Your task to perform on an android device: Show me recent news Image 0: 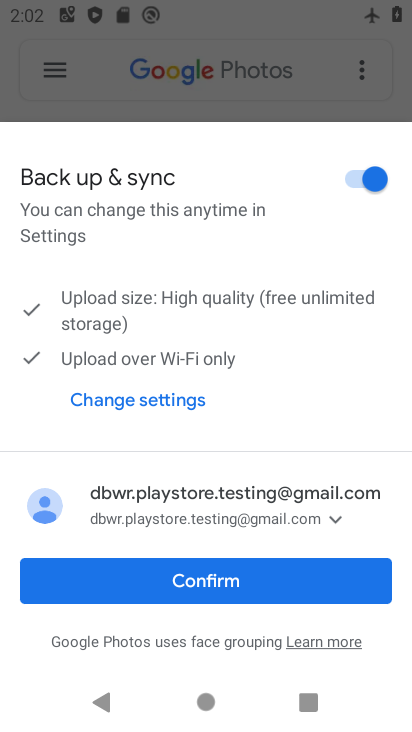
Step 0: press home button
Your task to perform on an android device: Show me recent news Image 1: 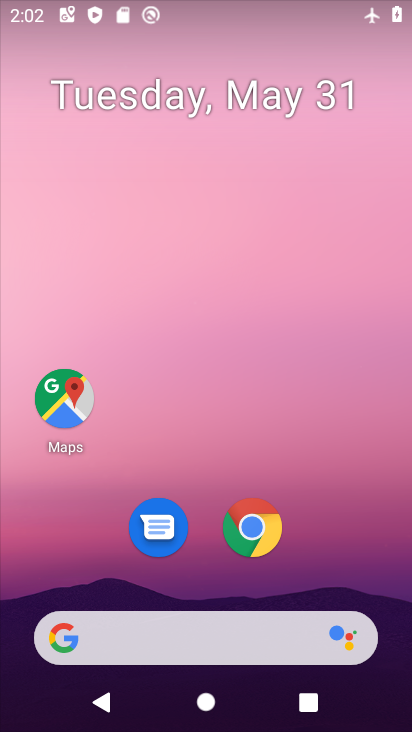
Step 1: drag from (365, 529) to (307, 34)
Your task to perform on an android device: Show me recent news Image 2: 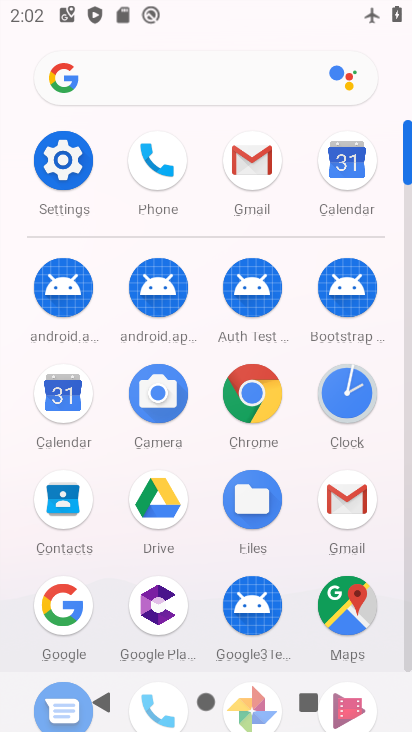
Step 2: click (246, 401)
Your task to perform on an android device: Show me recent news Image 3: 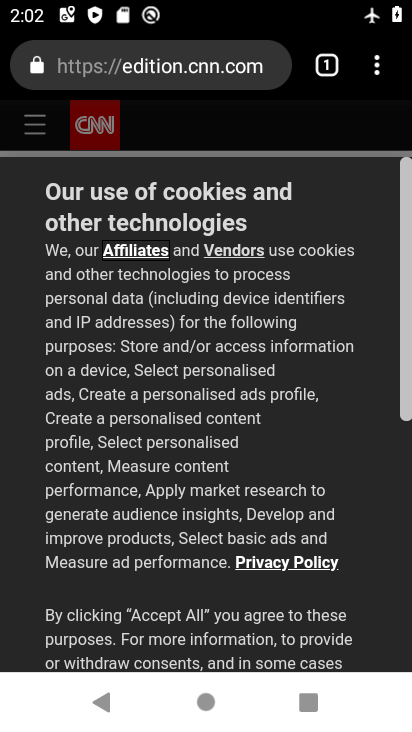
Step 3: task complete